Your task to perform on an android device: turn on bluetooth scan Image 0: 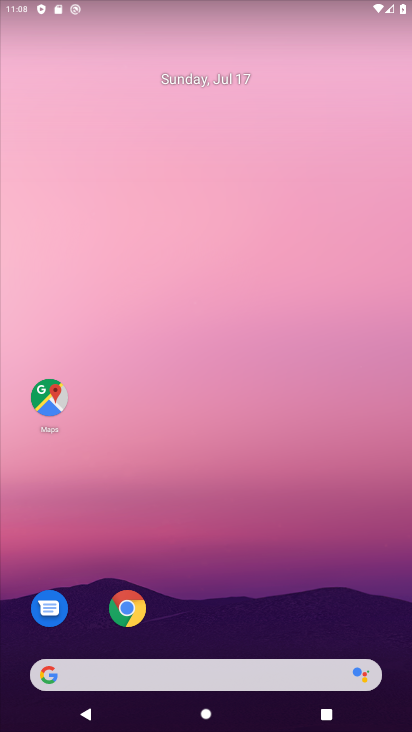
Step 0: drag from (306, 616) to (273, 48)
Your task to perform on an android device: turn on bluetooth scan Image 1: 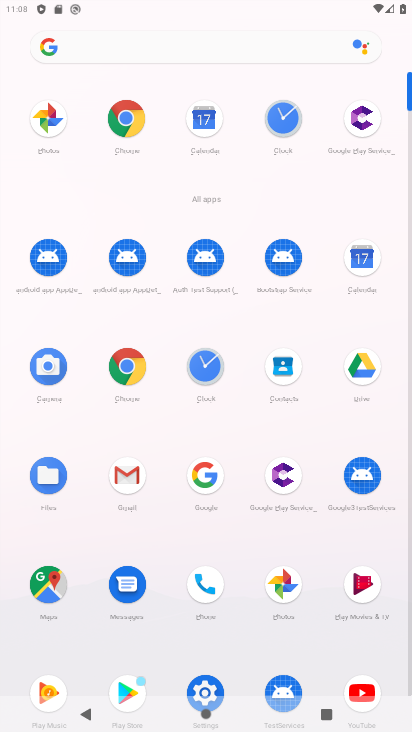
Step 1: click (210, 680)
Your task to perform on an android device: turn on bluetooth scan Image 2: 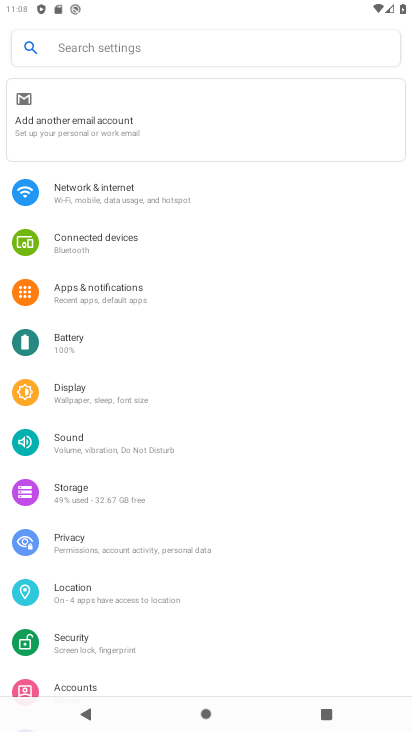
Step 2: click (94, 593)
Your task to perform on an android device: turn on bluetooth scan Image 3: 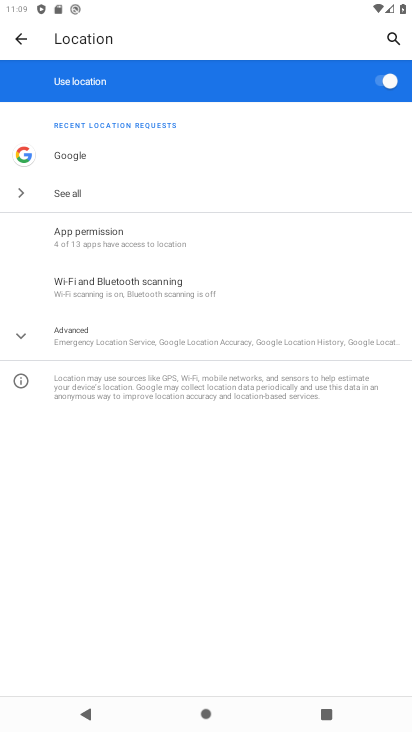
Step 3: click (156, 293)
Your task to perform on an android device: turn on bluetooth scan Image 4: 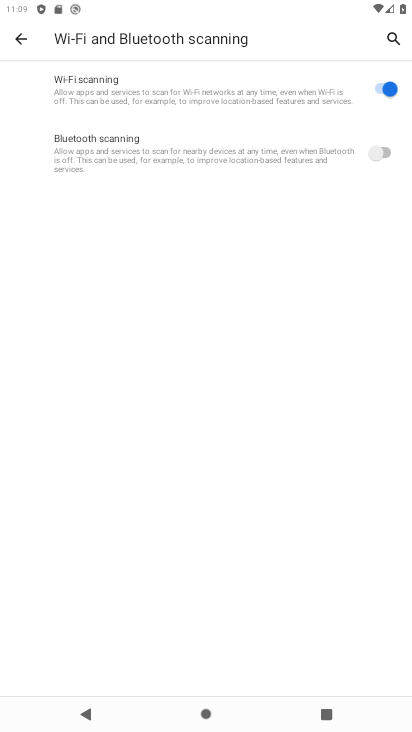
Step 4: click (373, 165)
Your task to perform on an android device: turn on bluetooth scan Image 5: 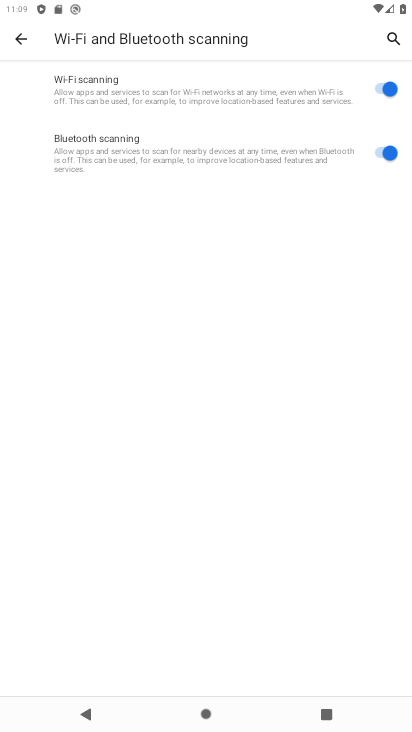
Step 5: task complete